Your task to perform on an android device: toggle javascript in the chrome app Image 0: 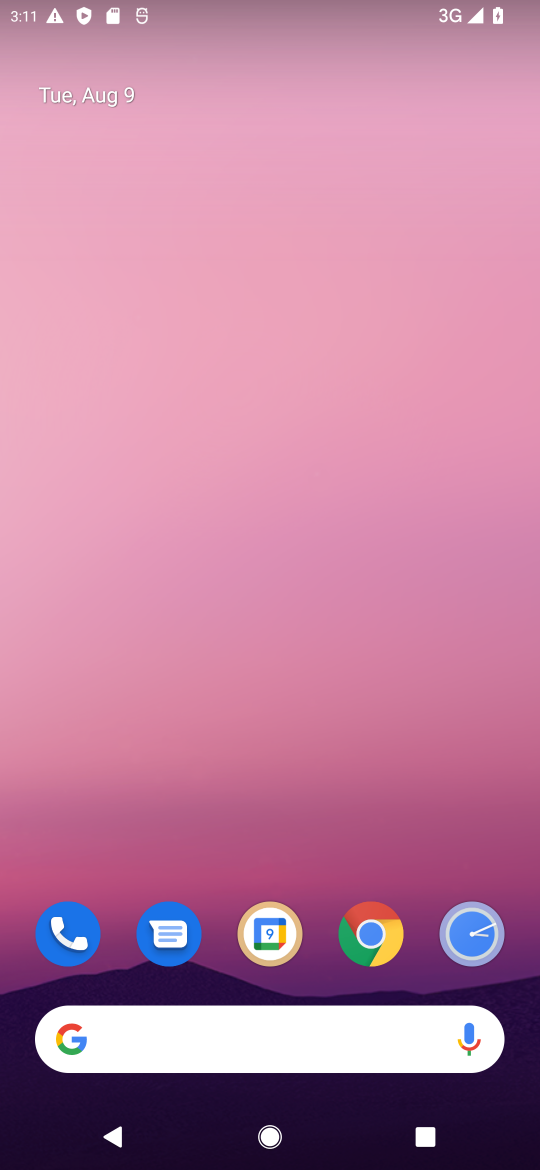
Step 0: click (363, 957)
Your task to perform on an android device: toggle javascript in the chrome app Image 1: 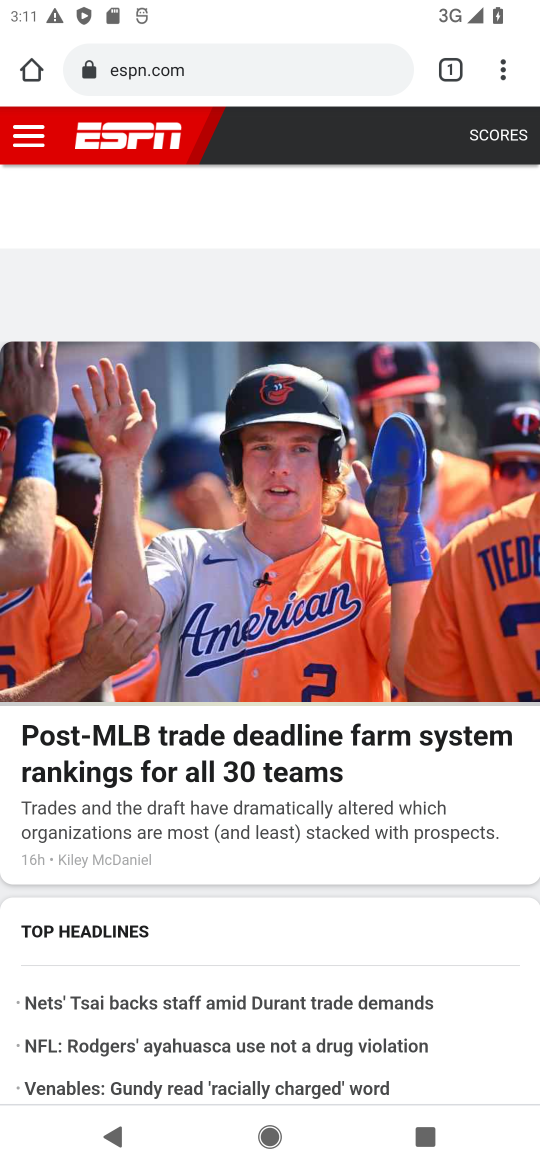
Step 1: click (497, 85)
Your task to perform on an android device: toggle javascript in the chrome app Image 2: 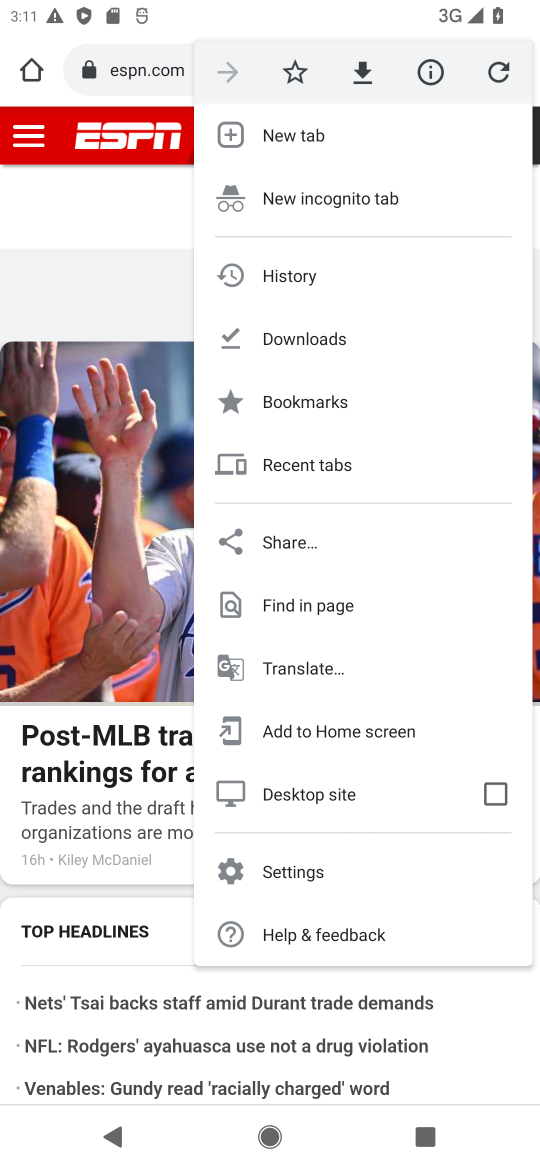
Step 2: click (250, 851)
Your task to perform on an android device: toggle javascript in the chrome app Image 3: 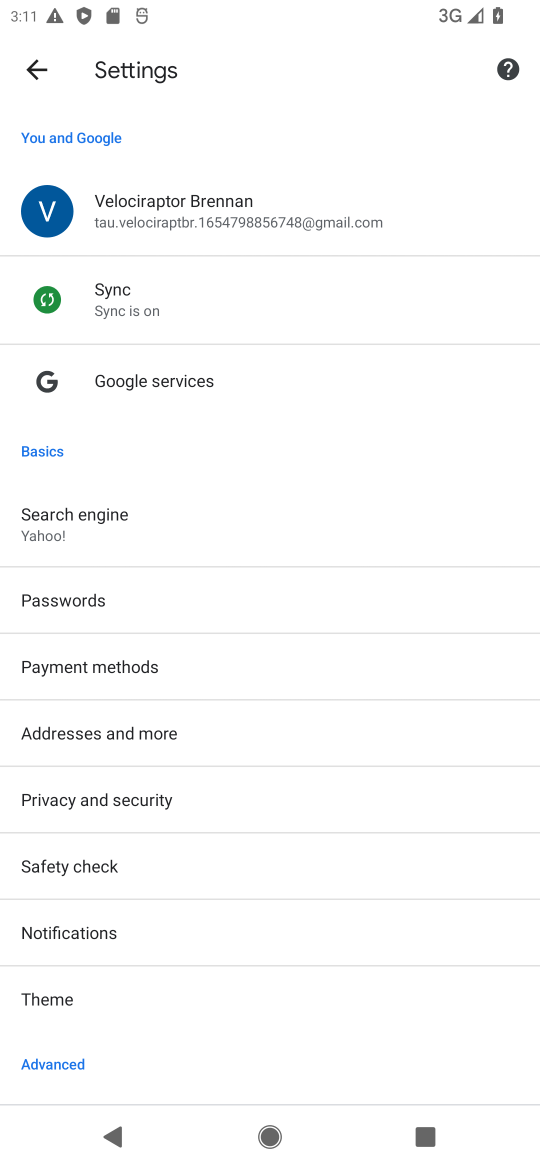
Step 3: task complete